Your task to perform on an android device: turn notification dots off Image 0: 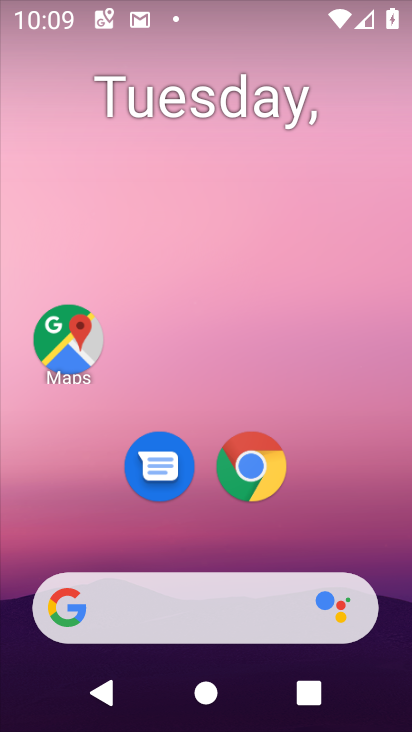
Step 0: drag from (360, 633) to (327, 169)
Your task to perform on an android device: turn notification dots off Image 1: 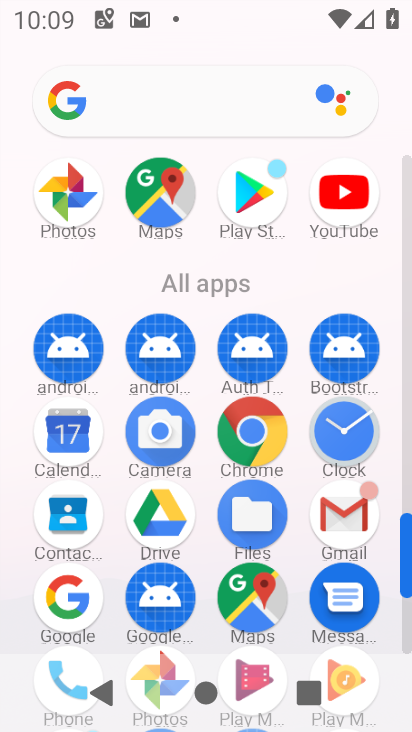
Step 1: drag from (124, 557) to (176, 224)
Your task to perform on an android device: turn notification dots off Image 2: 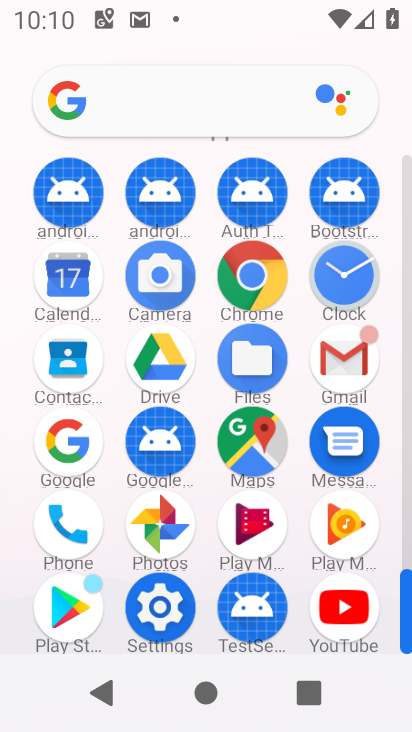
Step 2: click (163, 591)
Your task to perform on an android device: turn notification dots off Image 3: 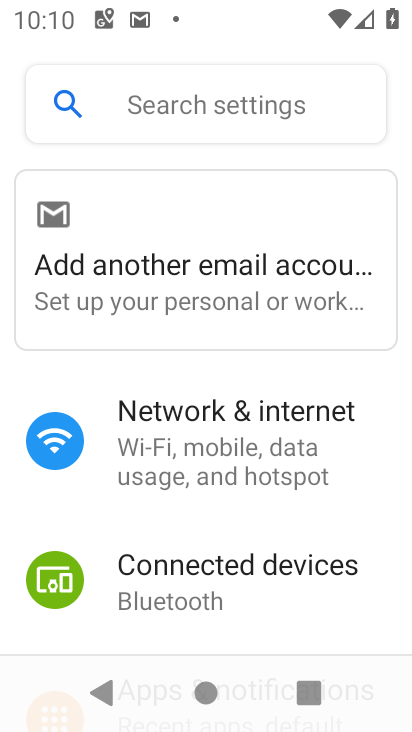
Step 3: click (226, 99)
Your task to perform on an android device: turn notification dots off Image 4: 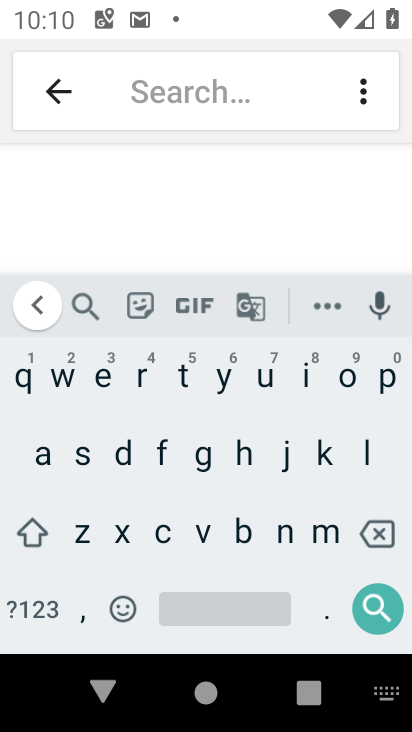
Step 4: click (125, 468)
Your task to perform on an android device: turn notification dots off Image 5: 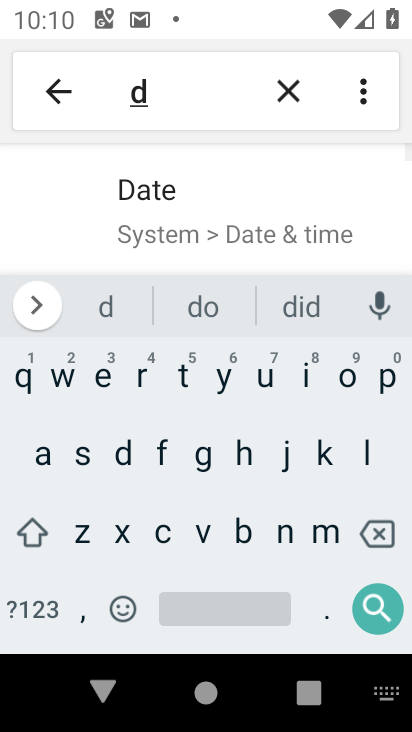
Step 5: click (347, 371)
Your task to perform on an android device: turn notification dots off Image 6: 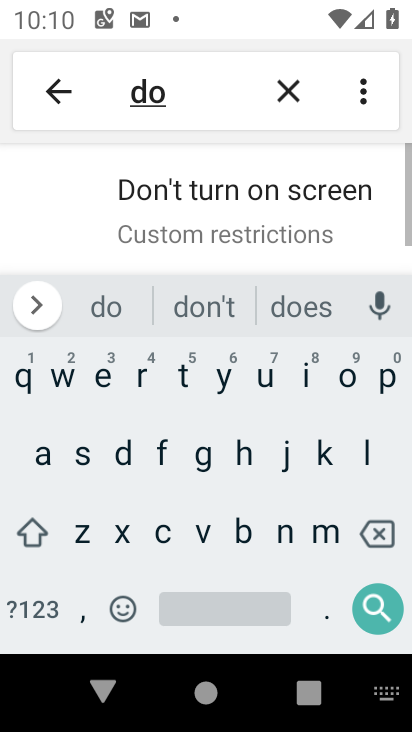
Step 6: click (188, 385)
Your task to perform on an android device: turn notification dots off Image 7: 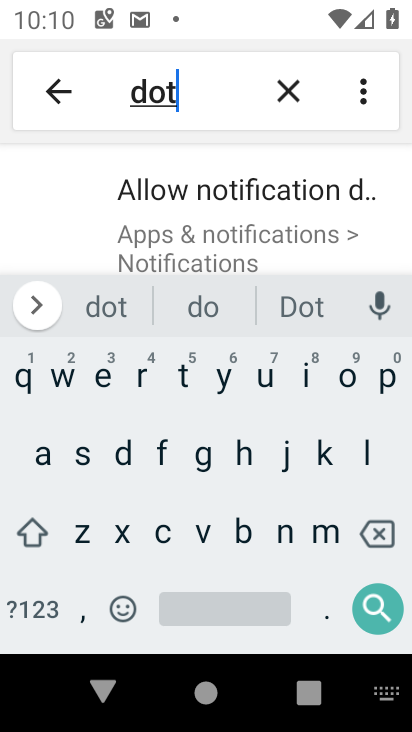
Step 7: click (218, 219)
Your task to perform on an android device: turn notification dots off Image 8: 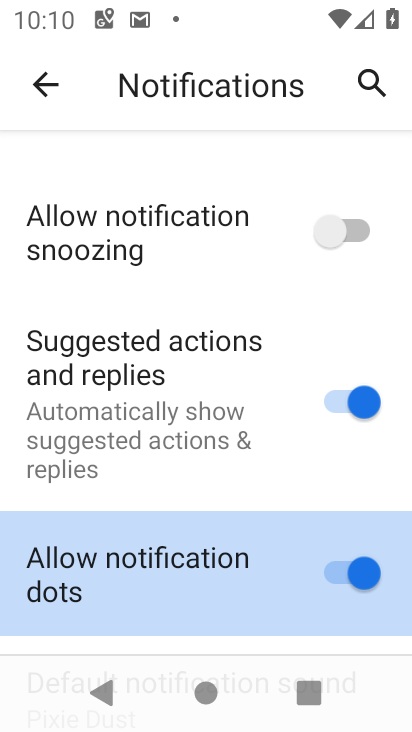
Step 8: click (294, 573)
Your task to perform on an android device: turn notification dots off Image 9: 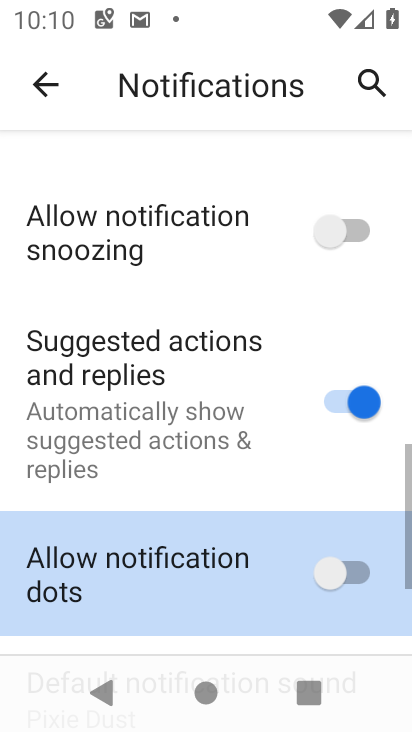
Step 9: task complete